Your task to perform on an android device: What's the weather going to be this weekend? Image 0: 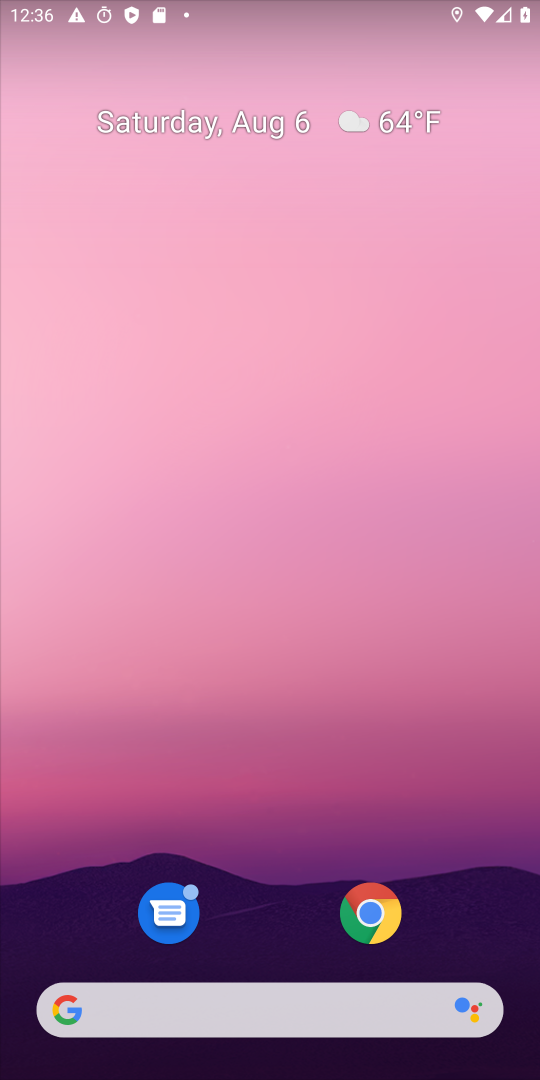
Step 0: press home button
Your task to perform on an android device: What's the weather going to be this weekend? Image 1: 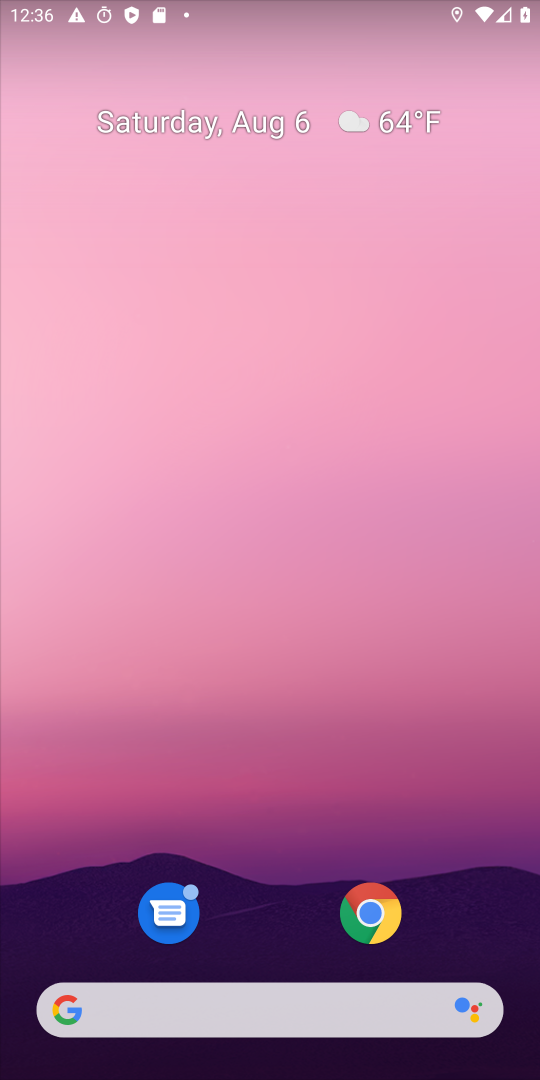
Step 1: press home button
Your task to perform on an android device: What's the weather going to be this weekend? Image 2: 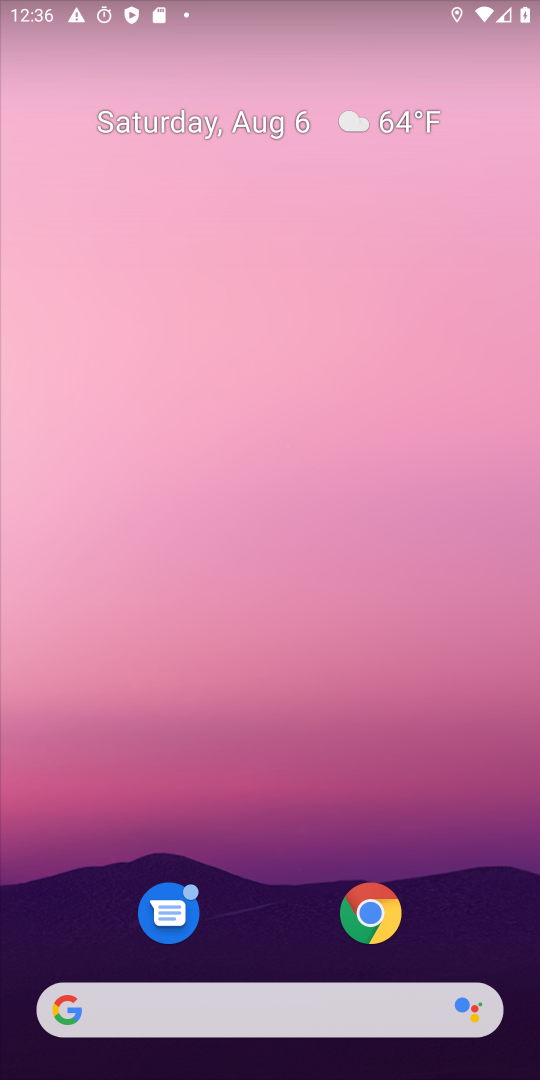
Step 2: click (313, 1006)
Your task to perform on an android device: What's the weather going to be this weekend? Image 3: 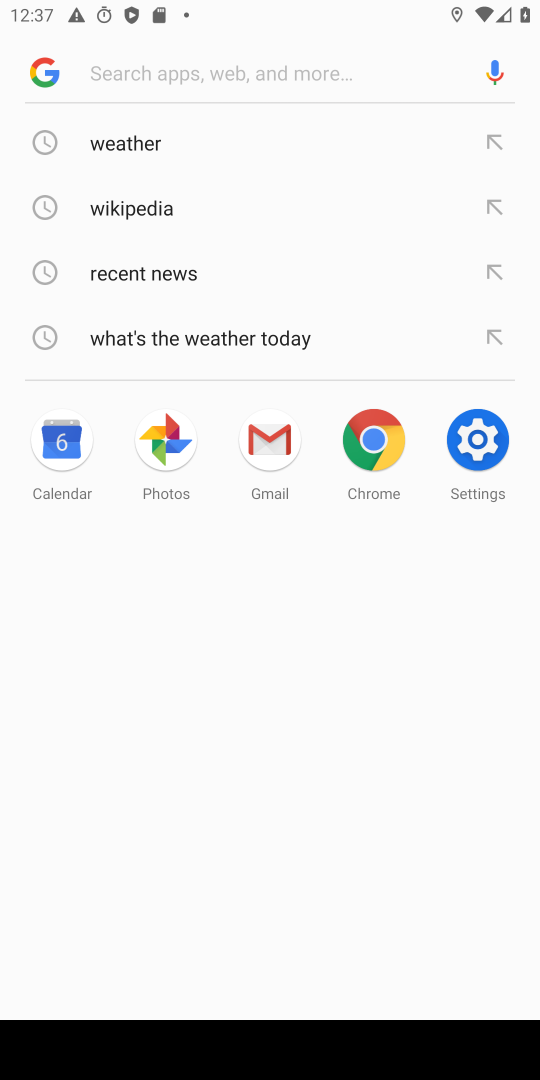
Step 3: click (153, 144)
Your task to perform on an android device: What's the weather going to be this weekend? Image 4: 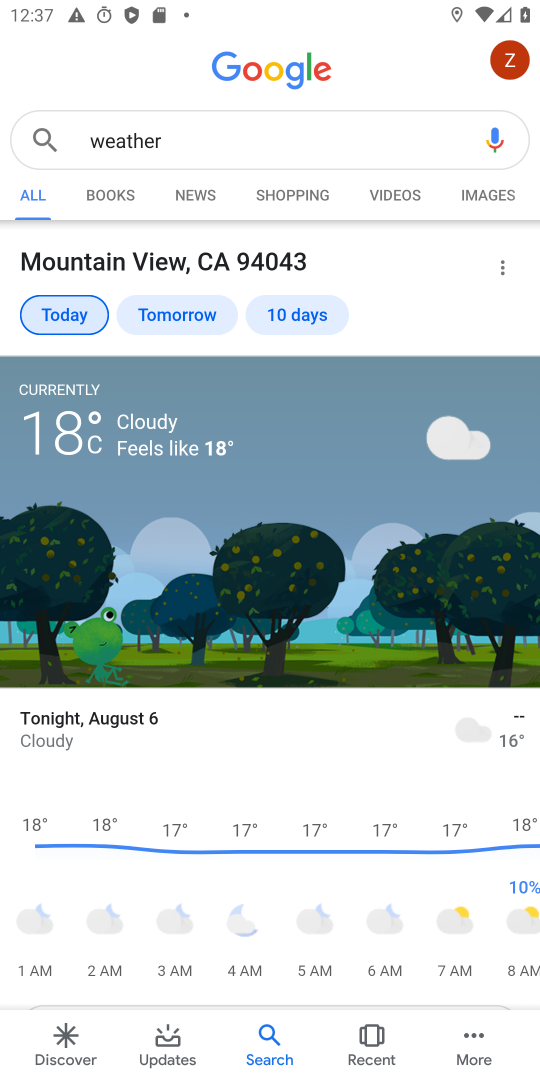
Step 4: click (315, 304)
Your task to perform on an android device: What's the weather going to be this weekend? Image 5: 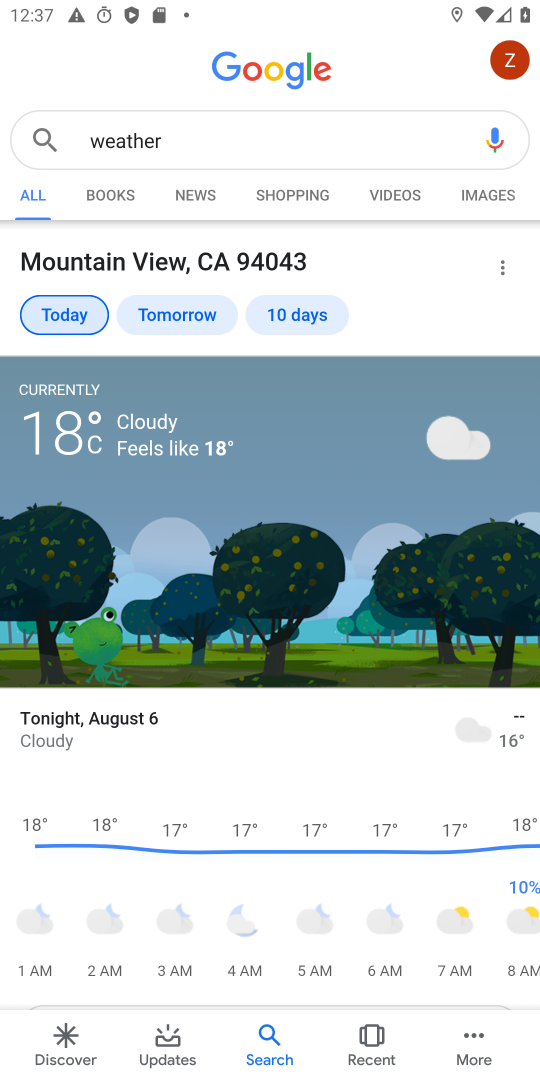
Step 5: click (299, 320)
Your task to perform on an android device: What's the weather going to be this weekend? Image 6: 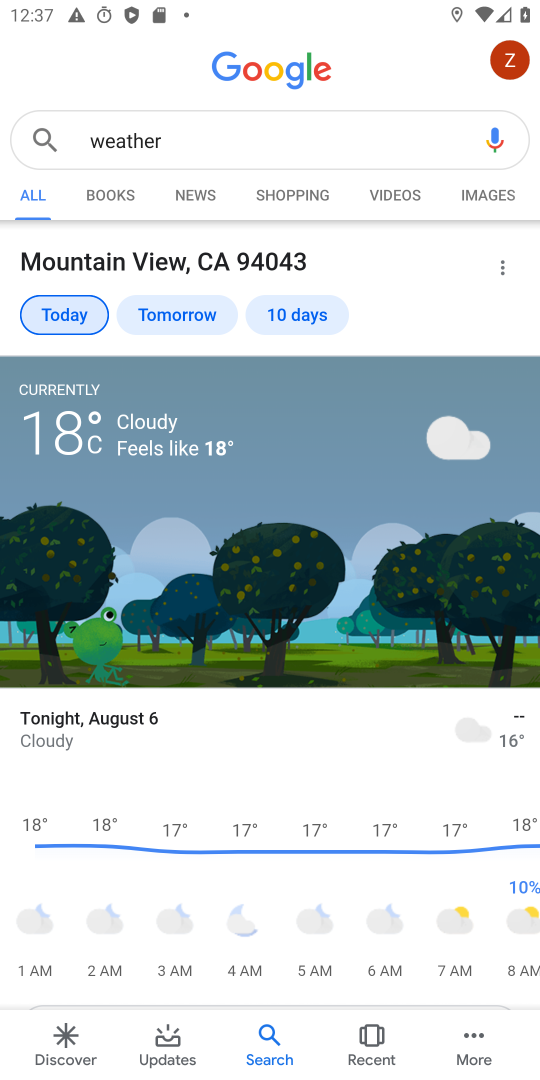
Step 6: task complete